Your task to perform on an android device: turn on airplane mode Image 0: 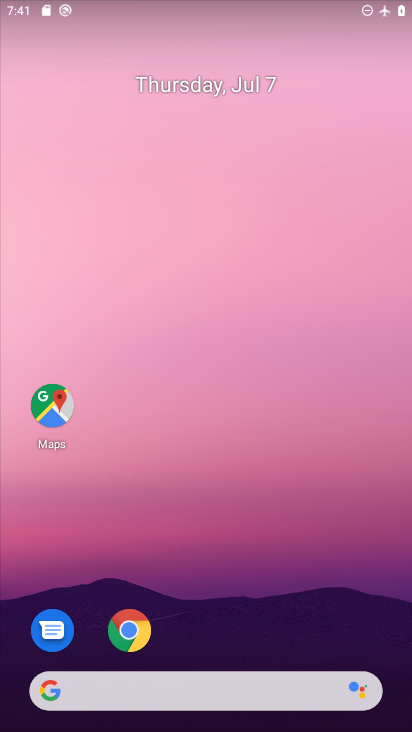
Step 0: drag from (208, 600) to (191, 166)
Your task to perform on an android device: turn on airplane mode Image 1: 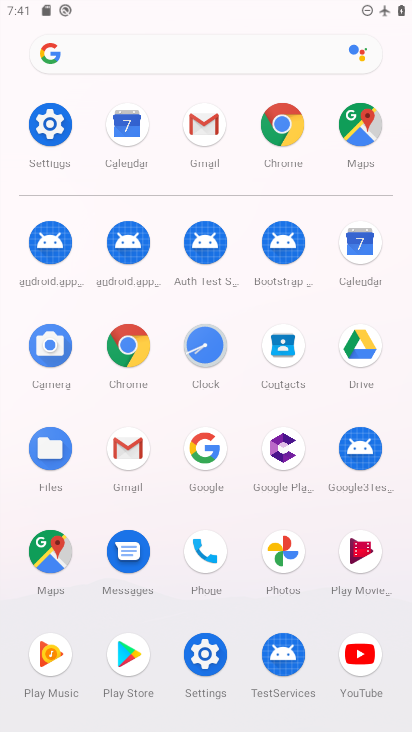
Step 1: click (50, 125)
Your task to perform on an android device: turn on airplane mode Image 2: 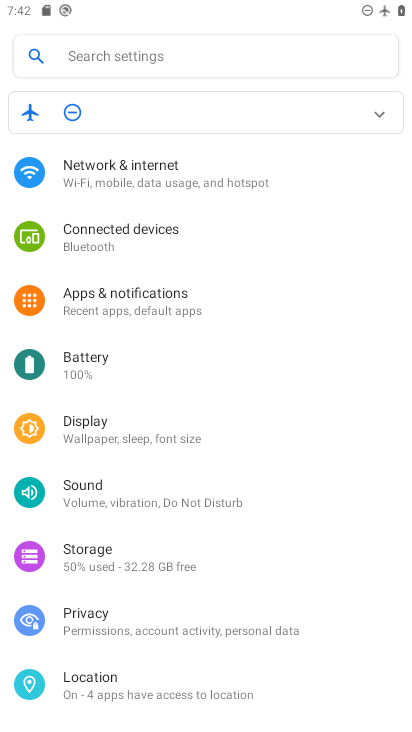
Step 2: click (127, 159)
Your task to perform on an android device: turn on airplane mode Image 3: 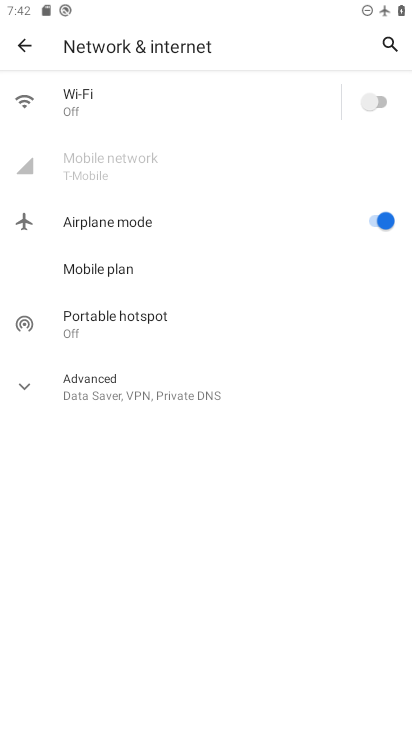
Step 3: task complete